Your task to perform on an android device: Open settings Image 0: 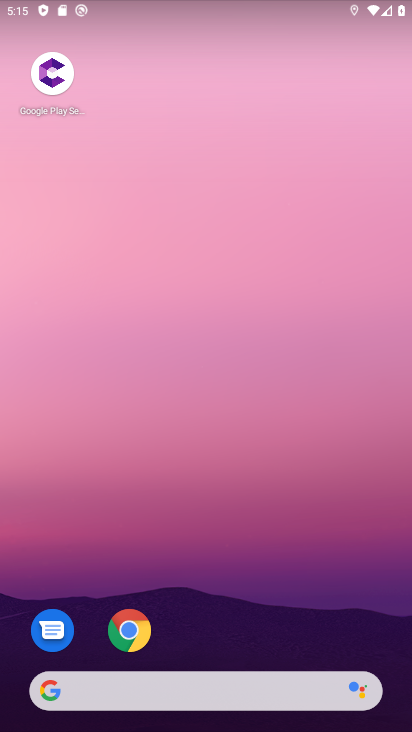
Step 0: drag from (211, 622) to (188, 248)
Your task to perform on an android device: Open settings Image 1: 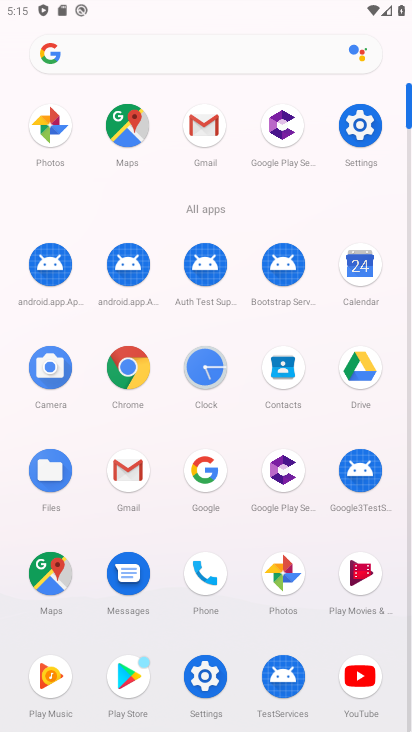
Step 1: click (368, 128)
Your task to perform on an android device: Open settings Image 2: 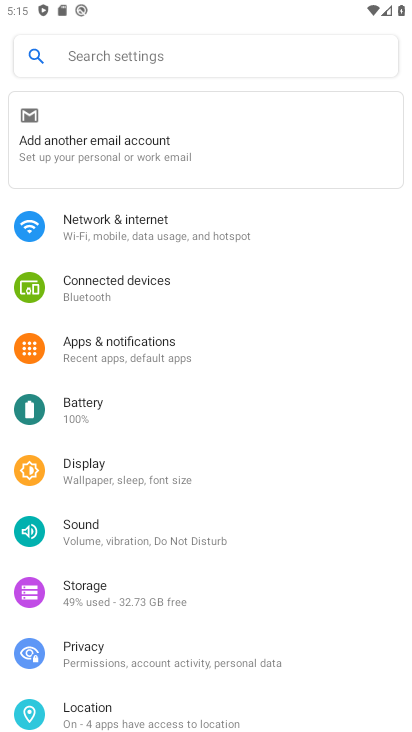
Step 2: task complete